Your task to perform on an android device: add a contact in the contacts app Image 0: 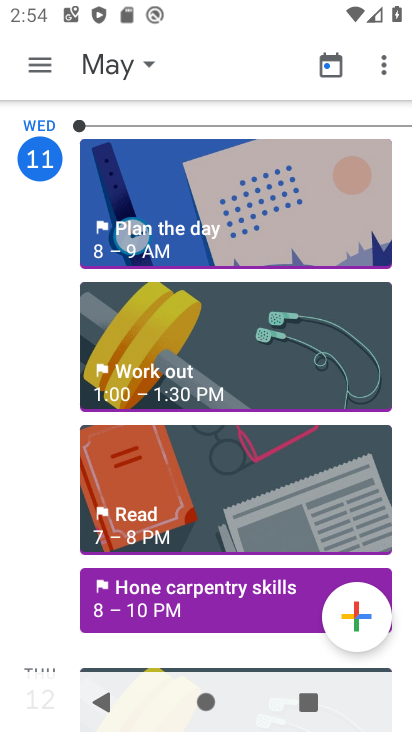
Step 0: press home button
Your task to perform on an android device: add a contact in the contacts app Image 1: 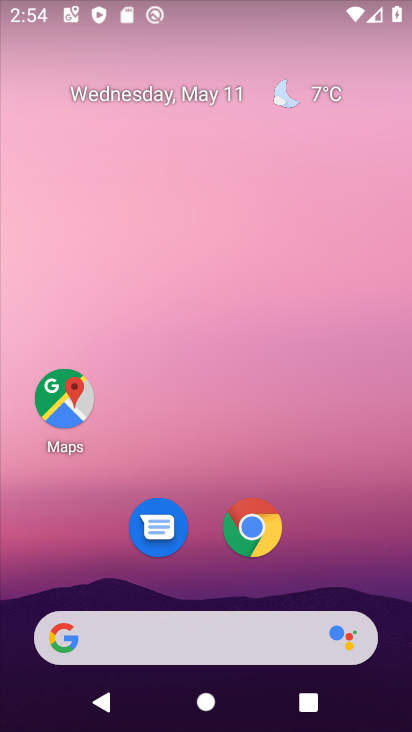
Step 1: drag from (329, 565) to (312, 12)
Your task to perform on an android device: add a contact in the contacts app Image 2: 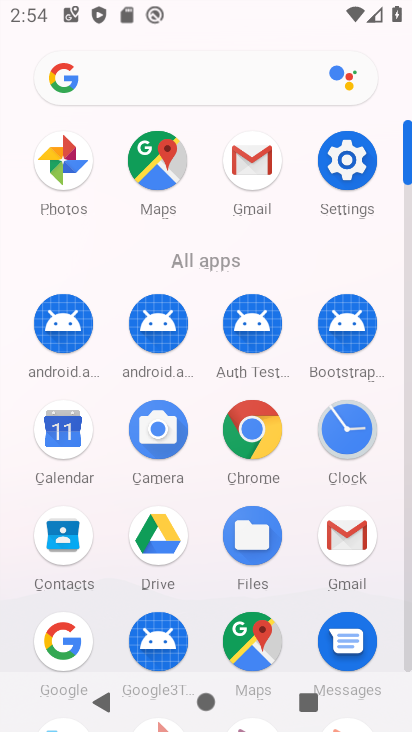
Step 2: click (62, 541)
Your task to perform on an android device: add a contact in the contacts app Image 3: 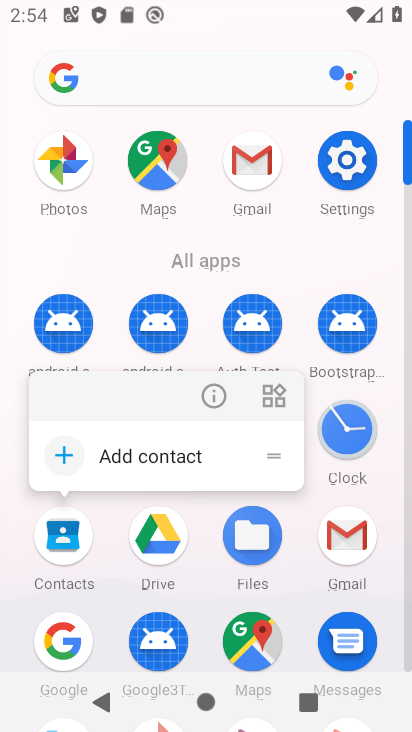
Step 3: click (62, 541)
Your task to perform on an android device: add a contact in the contacts app Image 4: 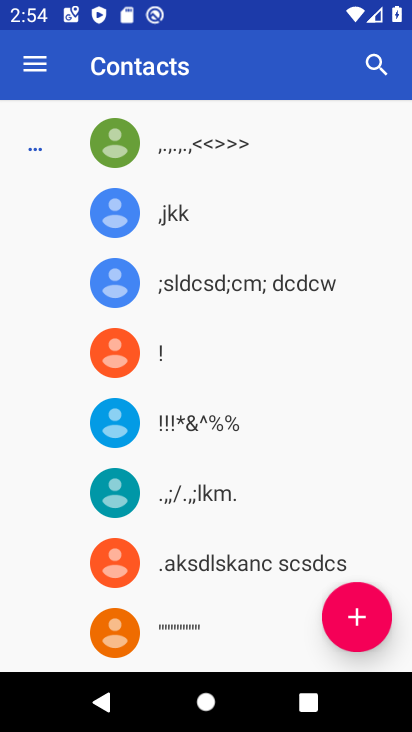
Step 4: click (358, 621)
Your task to perform on an android device: add a contact in the contacts app Image 5: 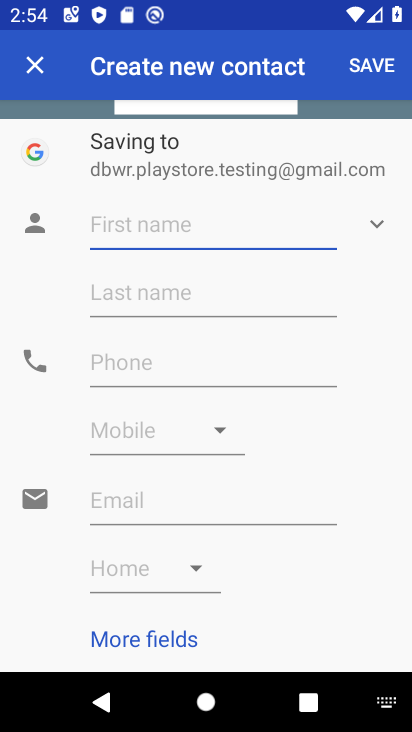
Step 5: click (127, 235)
Your task to perform on an android device: add a contact in the contacts app Image 6: 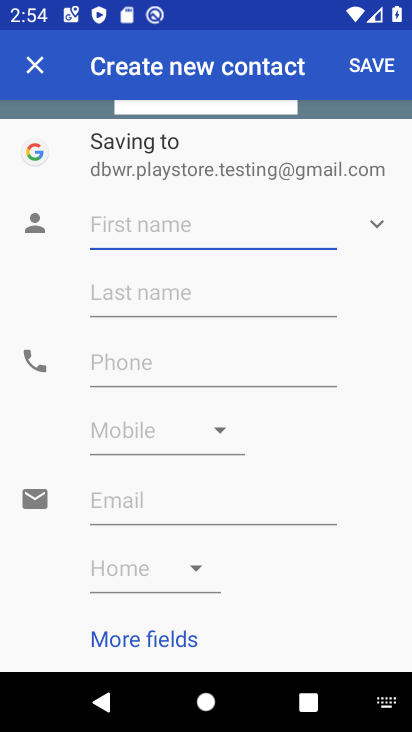
Step 6: type "candy"
Your task to perform on an android device: add a contact in the contacts app Image 7: 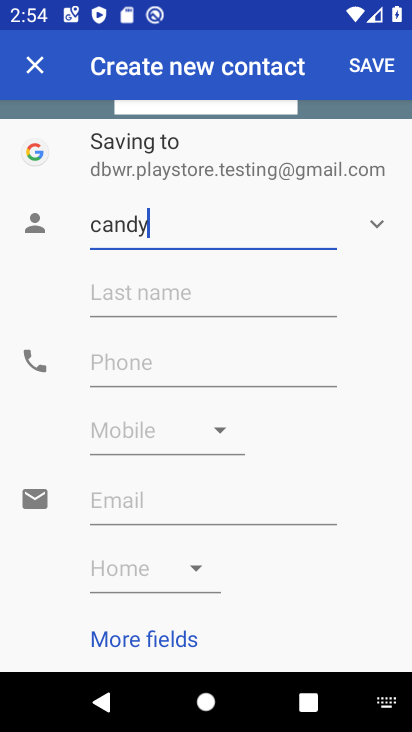
Step 7: click (200, 360)
Your task to perform on an android device: add a contact in the contacts app Image 8: 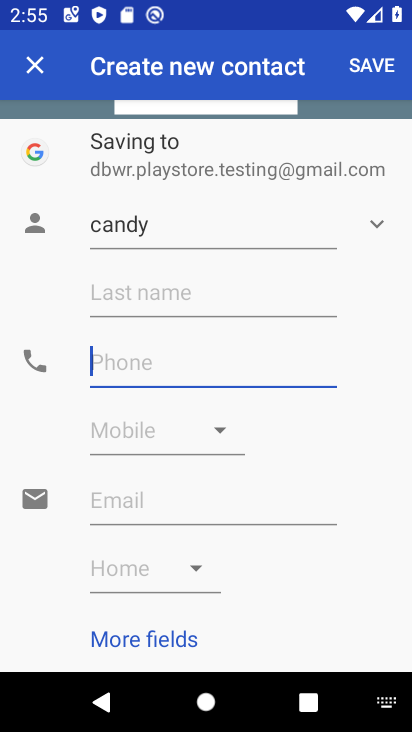
Step 8: type "98746373838"
Your task to perform on an android device: add a contact in the contacts app Image 9: 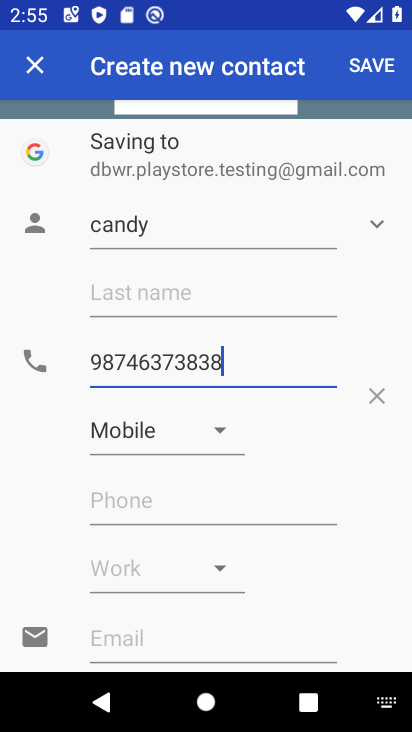
Step 9: click (377, 70)
Your task to perform on an android device: add a contact in the contacts app Image 10: 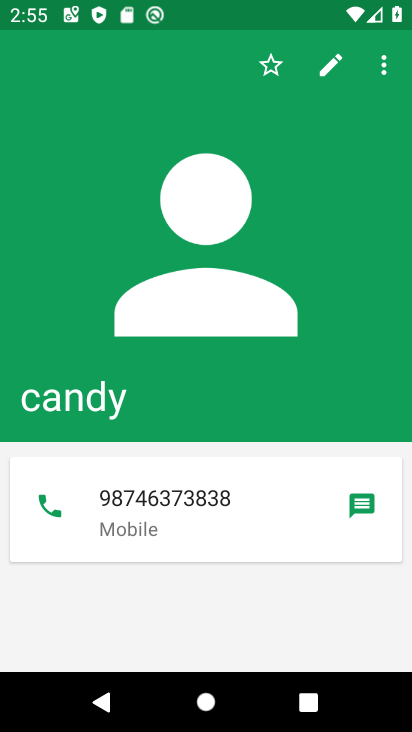
Step 10: task complete